Your task to perform on an android device: turn smart compose on in the gmail app Image 0: 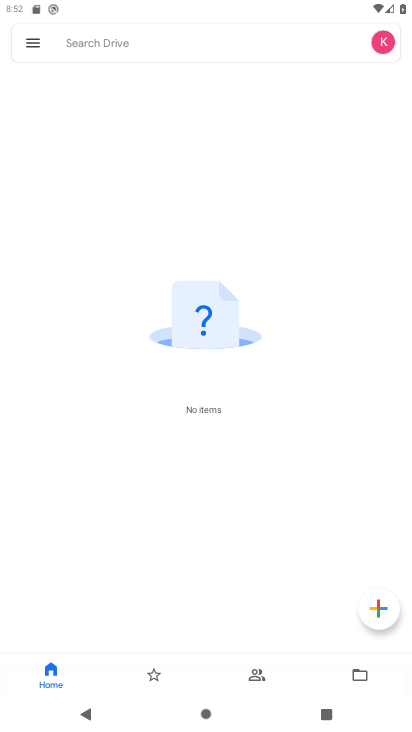
Step 0: press home button
Your task to perform on an android device: turn smart compose on in the gmail app Image 1: 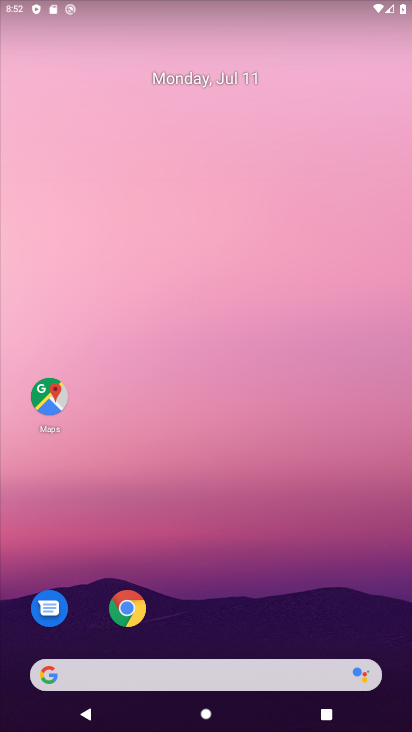
Step 1: drag from (185, 670) to (198, 80)
Your task to perform on an android device: turn smart compose on in the gmail app Image 2: 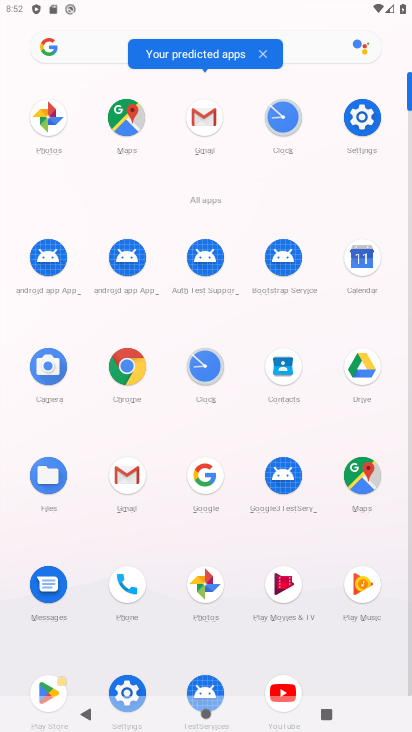
Step 2: click (139, 470)
Your task to perform on an android device: turn smart compose on in the gmail app Image 3: 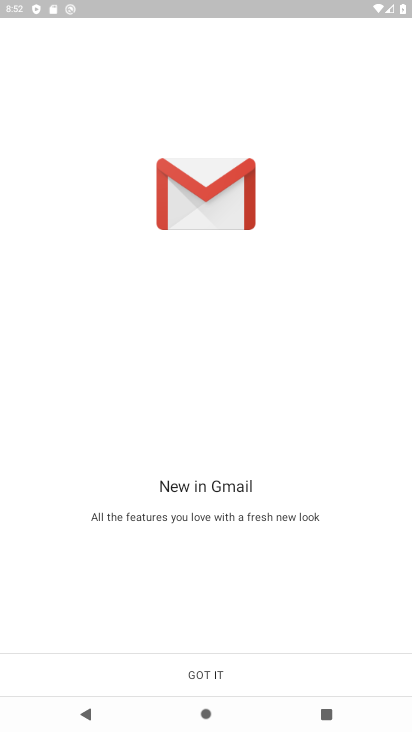
Step 3: click (204, 683)
Your task to perform on an android device: turn smart compose on in the gmail app Image 4: 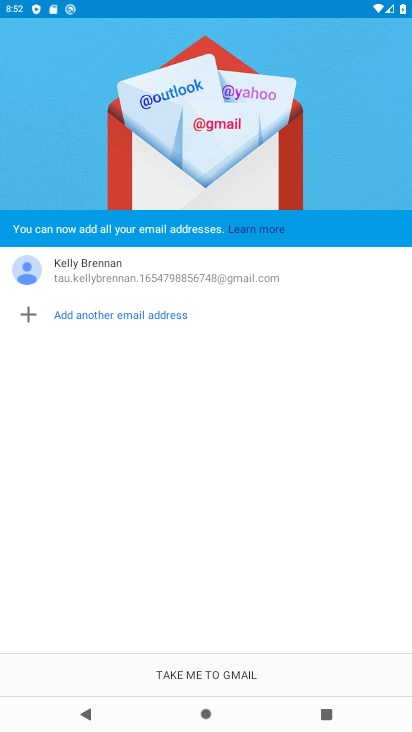
Step 4: click (208, 680)
Your task to perform on an android device: turn smart compose on in the gmail app Image 5: 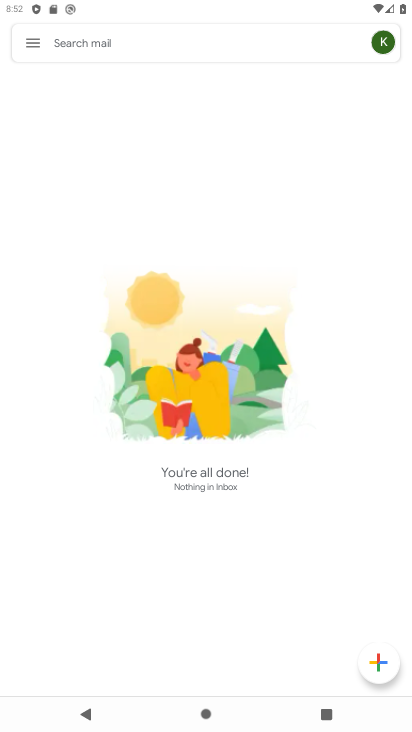
Step 5: click (27, 41)
Your task to perform on an android device: turn smart compose on in the gmail app Image 6: 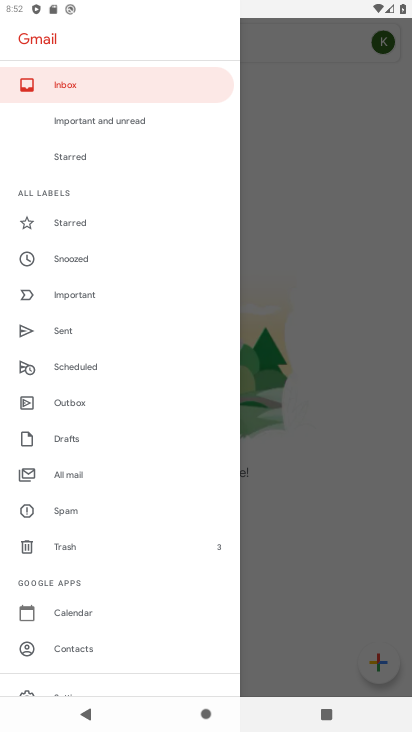
Step 6: drag from (115, 624) to (75, 280)
Your task to perform on an android device: turn smart compose on in the gmail app Image 7: 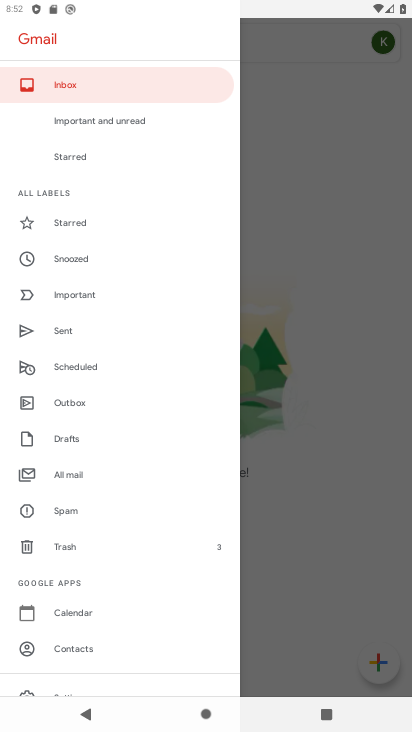
Step 7: drag from (117, 565) to (129, 163)
Your task to perform on an android device: turn smart compose on in the gmail app Image 8: 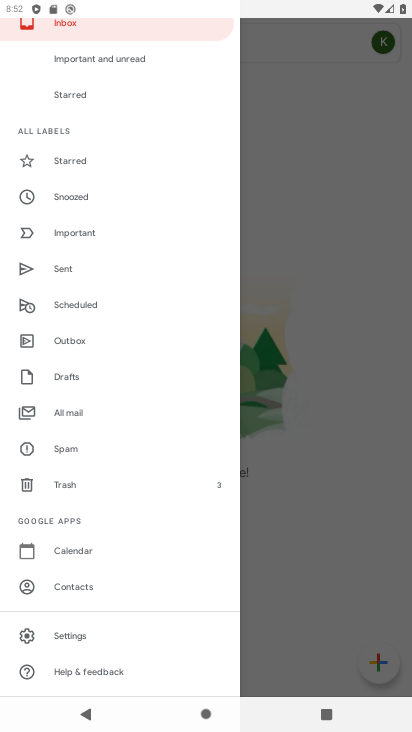
Step 8: click (60, 635)
Your task to perform on an android device: turn smart compose on in the gmail app Image 9: 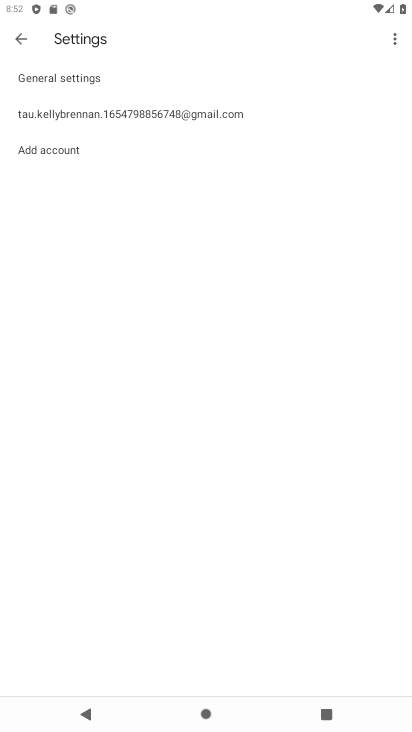
Step 9: click (128, 113)
Your task to perform on an android device: turn smart compose on in the gmail app Image 10: 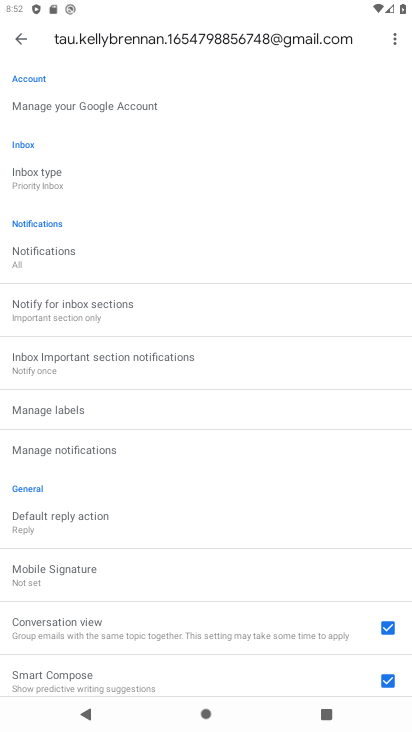
Step 10: task complete